Your task to perform on an android device: Search for vegetarian restaurants on Maps Image 0: 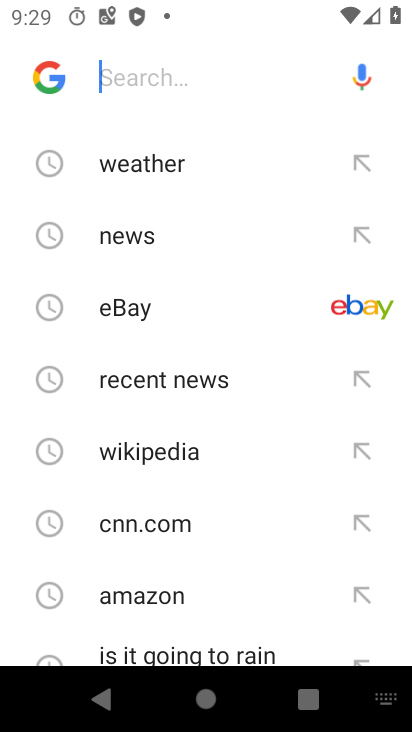
Step 0: press back button
Your task to perform on an android device: Search for vegetarian restaurants on Maps Image 1: 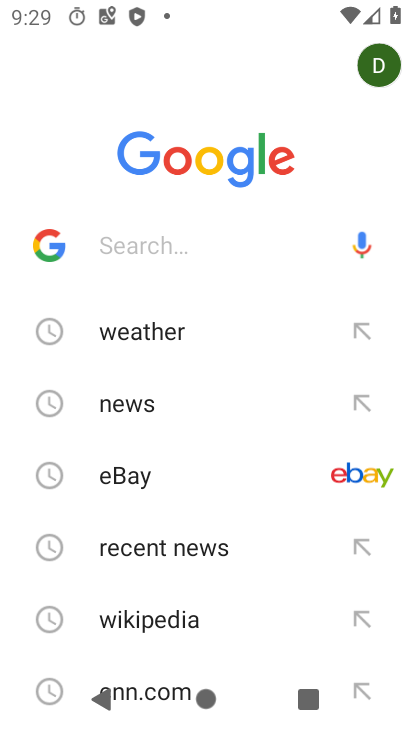
Step 1: press back button
Your task to perform on an android device: Search for vegetarian restaurants on Maps Image 2: 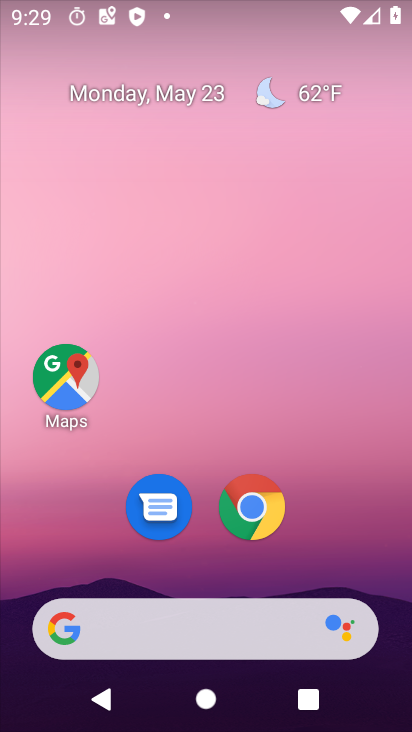
Step 2: click (63, 381)
Your task to perform on an android device: Search for vegetarian restaurants on Maps Image 3: 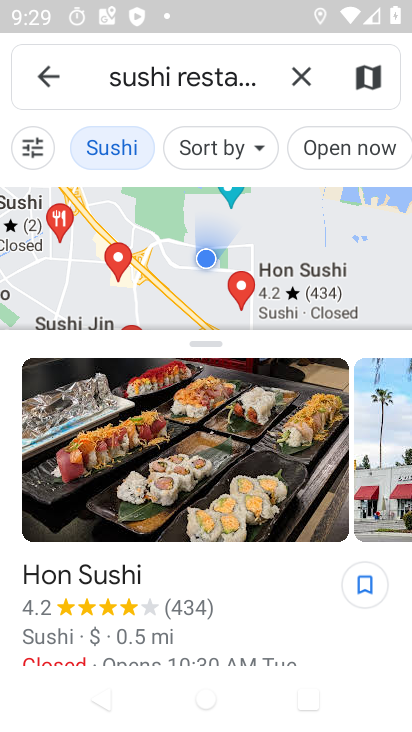
Step 3: click (300, 79)
Your task to perform on an android device: Search for vegetarian restaurants on Maps Image 4: 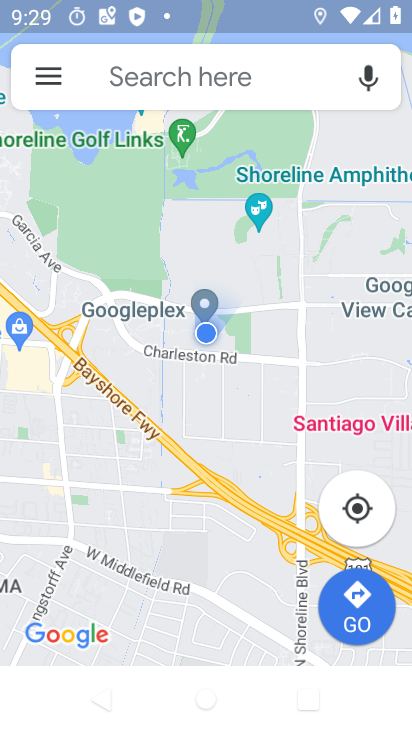
Step 4: click (214, 86)
Your task to perform on an android device: Search for vegetarian restaurants on Maps Image 5: 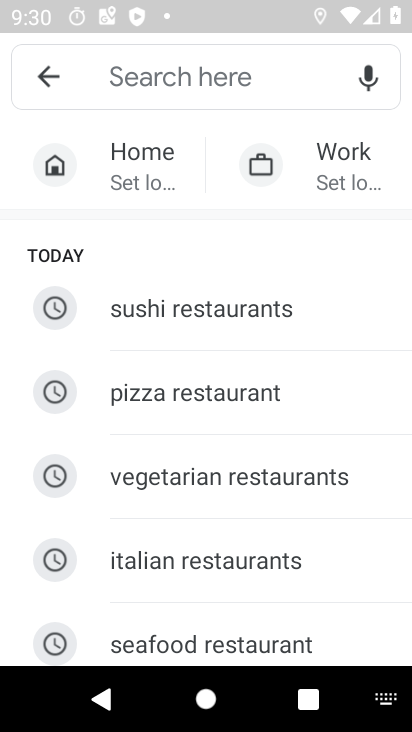
Step 5: type "vegetarian restaurants"
Your task to perform on an android device: Search for vegetarian restaurants on Maps Image 6: 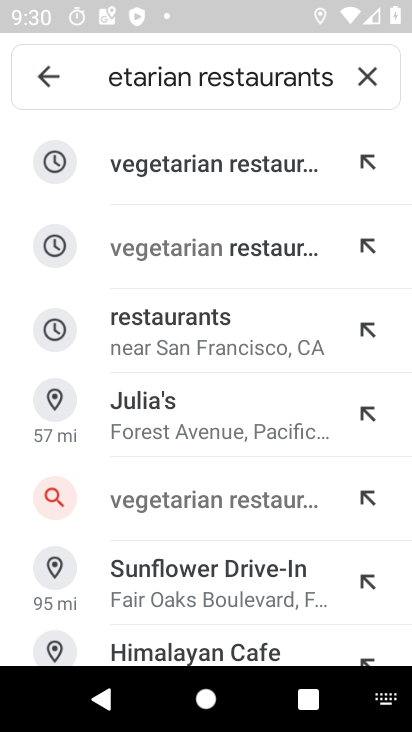
Step 6: click (246, 172)
Your task to perform on an android device: Search for vegetarian restaurants on Maps Image 7: 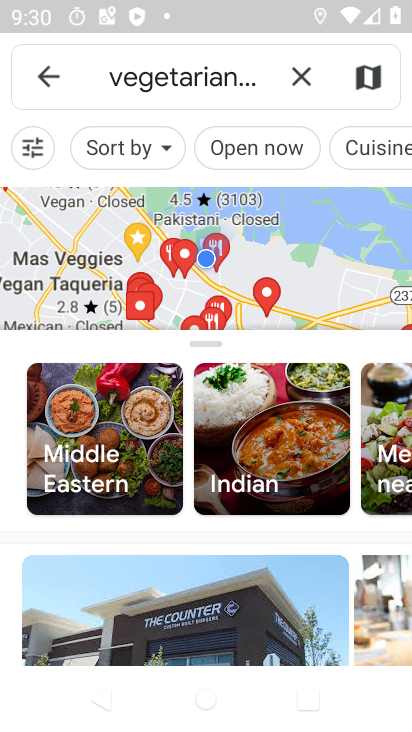
Step 7: task complete